Your task to perform on an android device: Open Chrome and go to settings Image 0: 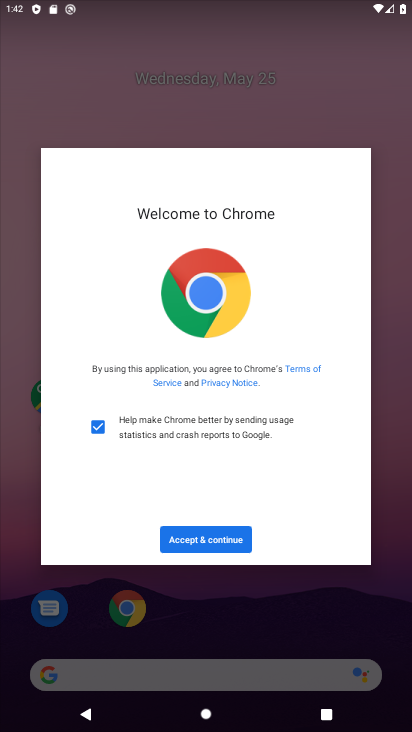
Step 0: click (223, 540)
Your task to perform on an android device: Open Chrome and go to settings Image 1: 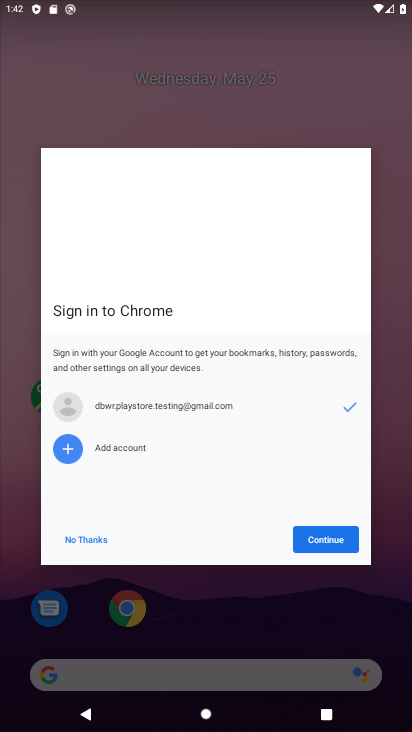
Step 1: click (343, 532)
Your task to perform on an android device: Open Chrome and go to settings Image 2: 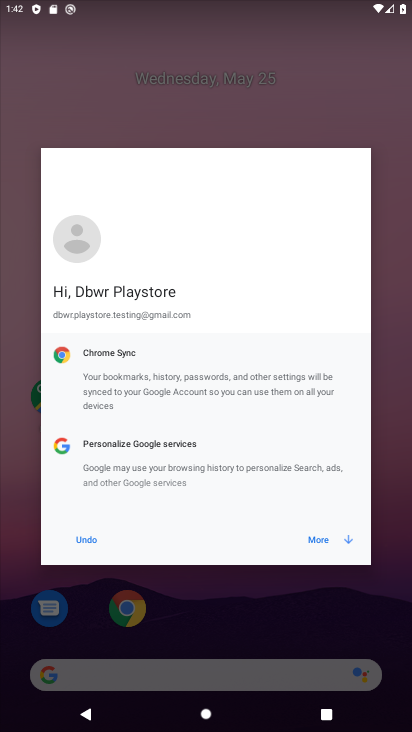
Step 2: click (325, 537)
Your task to perform on an android device: Open Chrome and go to settings Image 3: 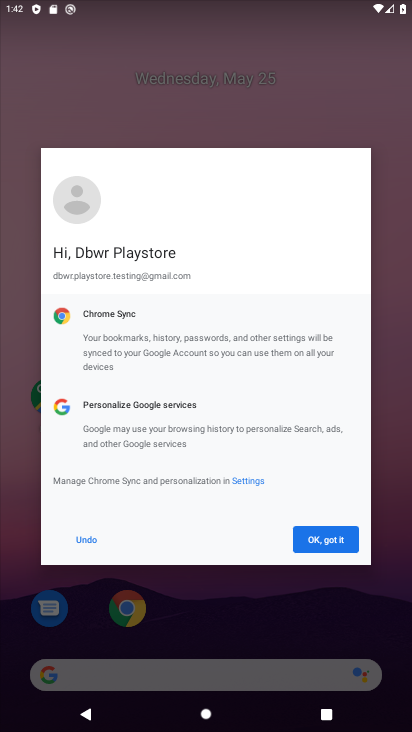
Step 3: click (325, 537)
Your task to perform on an android device: Open Chrome and go to settings Image 4: 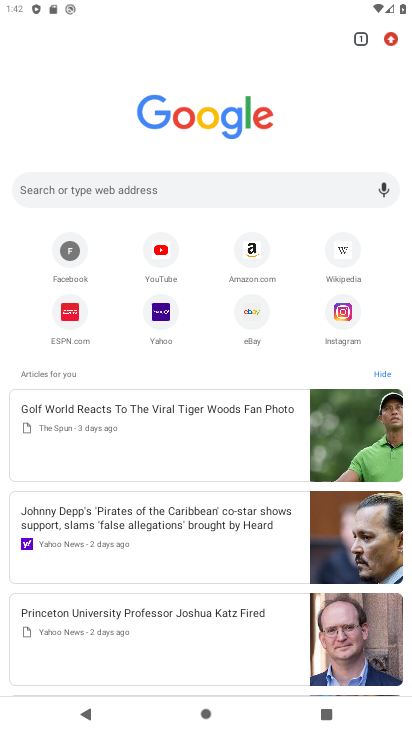
Step 4: click (393, 51)
Your task to perform on an android device: Open Chrome and go to settings Image 5: 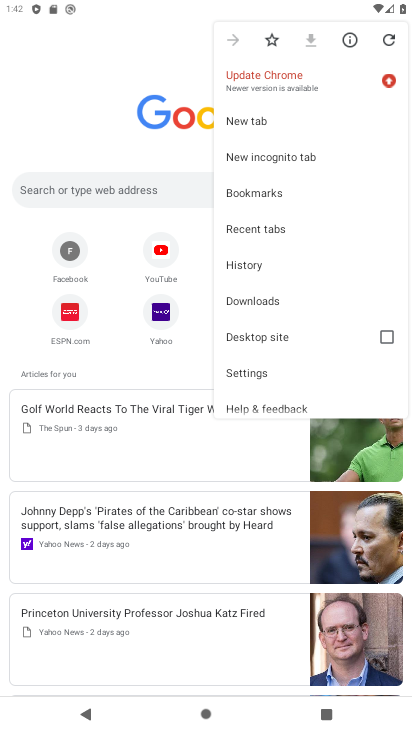
Step 5: click (324, 378)
Your task to perform on an android device: Open Chrome and go to settings Image 6: 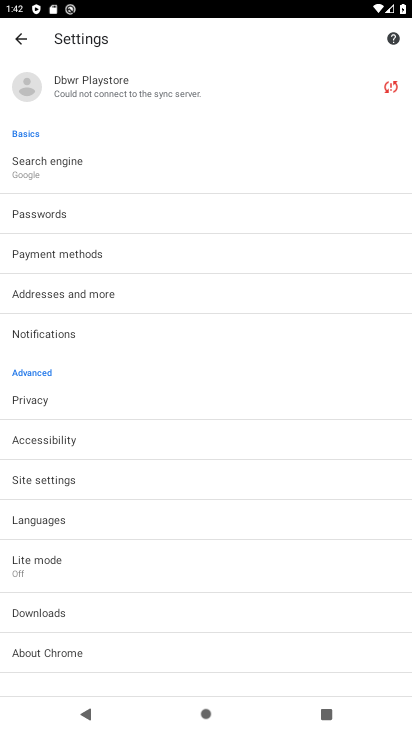
Step 6: task complete